Your task to perform on an android device: manage bookmarks in the chrome app Image 0: 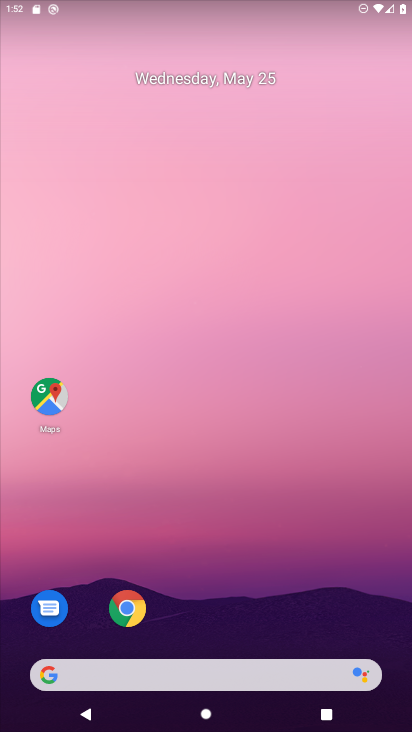
Step 0: click (132, 612)
Your task to perform on an android device: manage bookmarks in the chrome app Image 1: 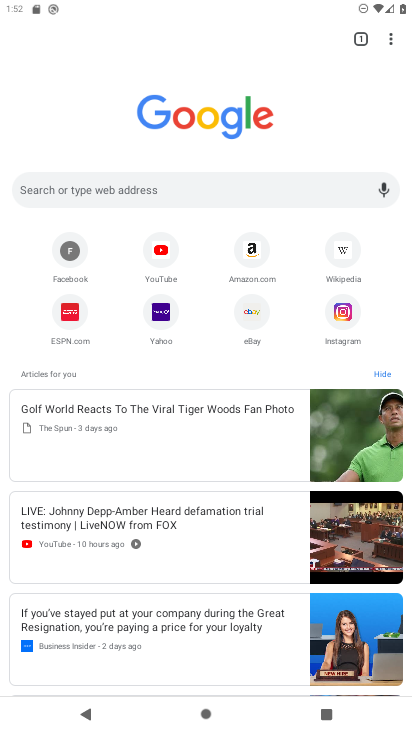
Step 1: click (390, 40)
Your task to perform on an android device: manage bookmarks in the chrome app Image 2: 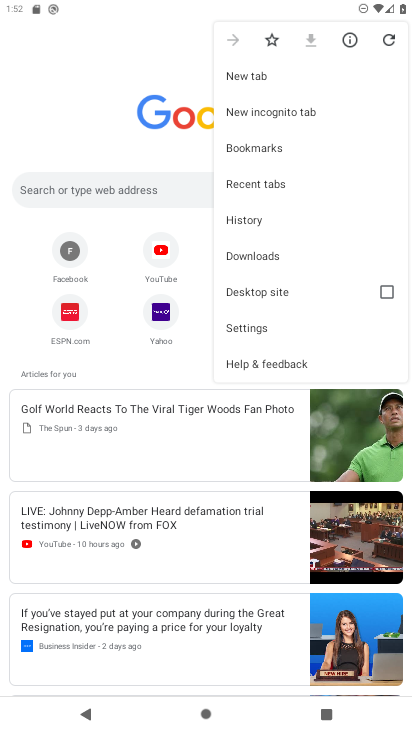
Step 2: click (261, 151)
Your task to perform on an android device: manage bookmarks in the chrome app Image 3: 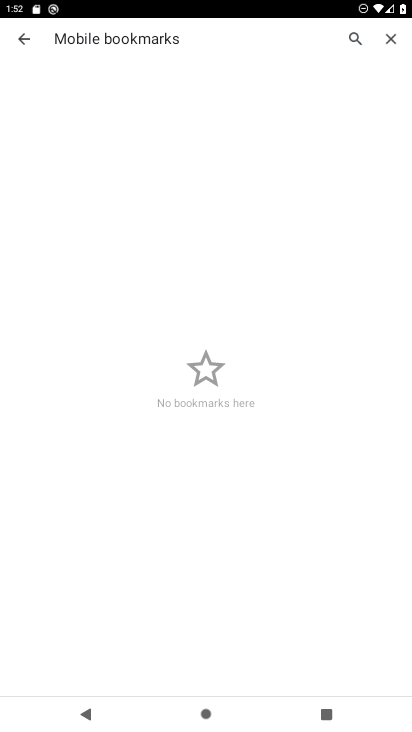
Step 3: task complete